Your task to perform on an android device: turn off data saver in the chrome app Image 0: 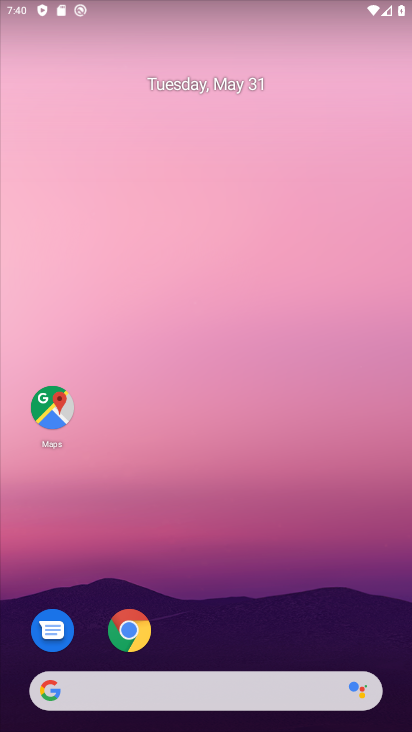
Step 0: click (130, 621)
Your task to perform on an android device: turn off data saver in the chrome app Image 1: 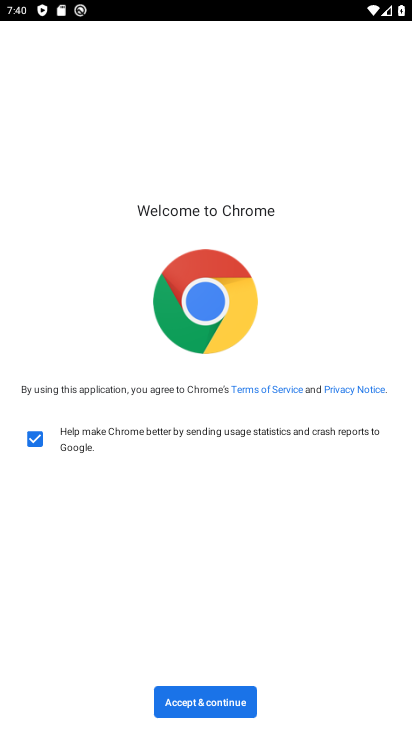
Step 1: click (170, 696)
Your task to perform on an android device: turn off data saver in the chrome app Image 2: 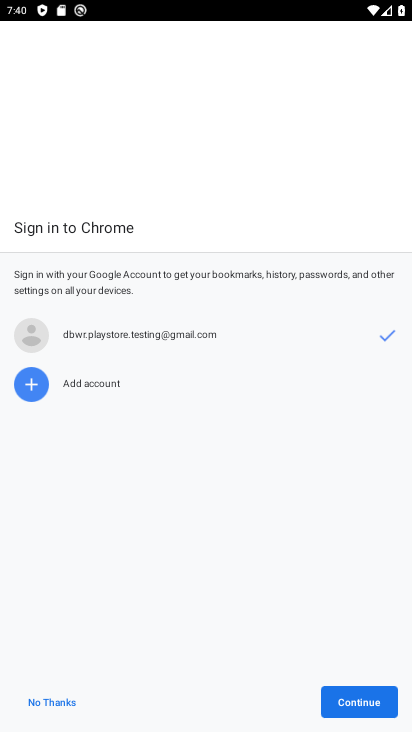
Step 2: click (50, 703)
Your task to perform on an android device: turn off data saver in the chrome app Image 3: 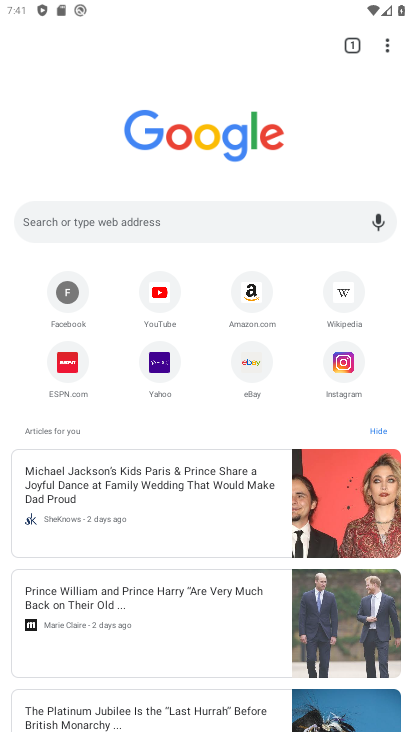
Step 3: click (390, 38)
Your task to perform on an android device: turn off data saver in the chrome app Image 4: 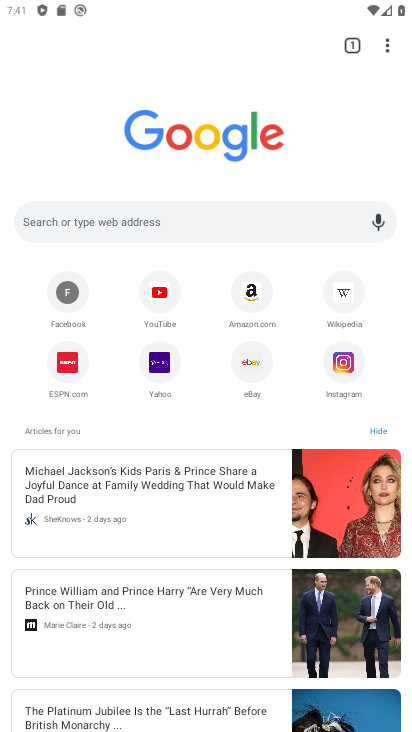
Step 4: drag from (390, 38) to (233, 390)
Your task to perform on an android device: turn off data saver in the chrome app Image 5: 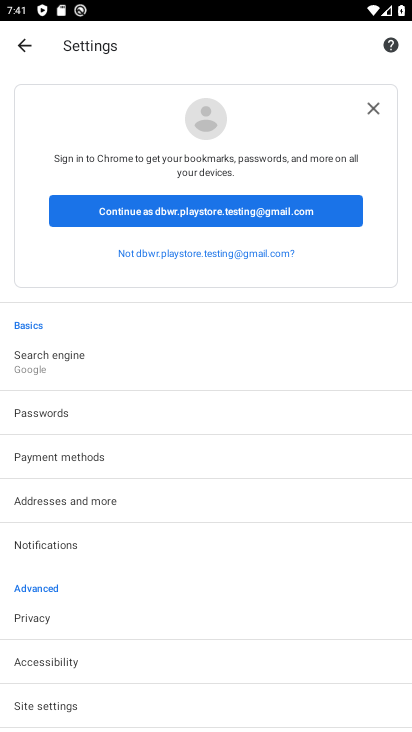
Step 5: drag from (303, 700) to (272, 206)
Your task to perform on an android device: turn off data saver in the chrome app Image 6: 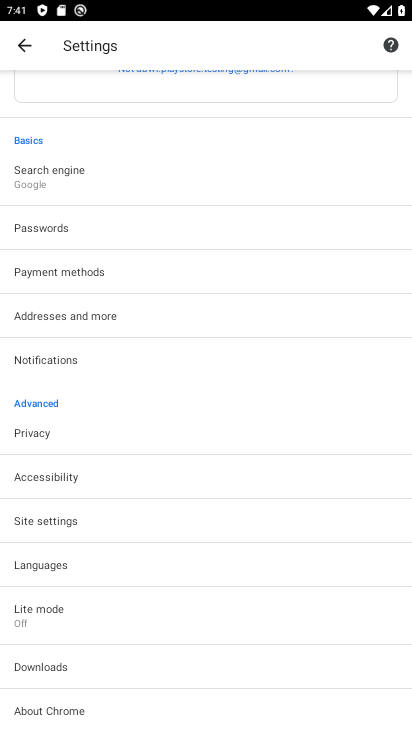
Step 6: click (78, 618)
Your task to perform on an android device: turn off data saver in the chrome app Image 7: 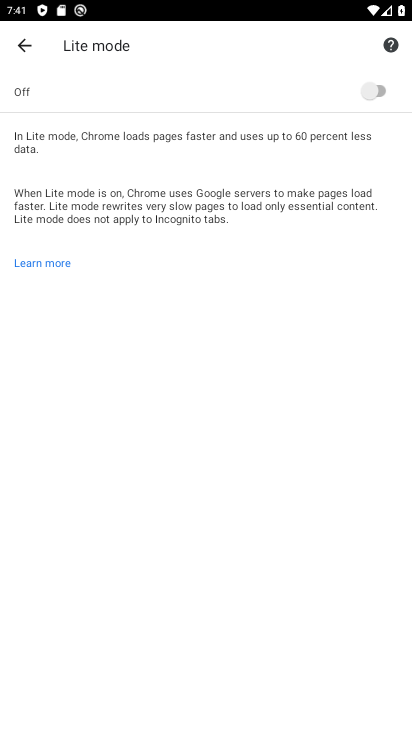
Step 7: task complete